Your task to perform on an android device: Open Google Image 0: 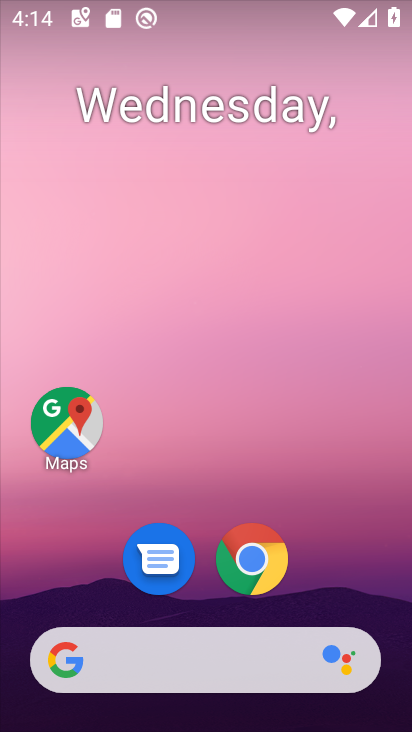
Step 0: drag from (341, 544) to (226, 80)
Your task to perform on an android device: Open Google Image 1: 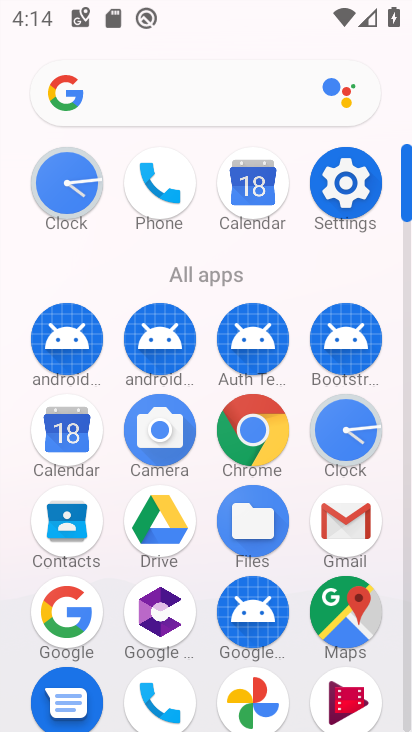
Step 1: click (66, 607)
Your task to perform on an android device: Open Google Image 2: 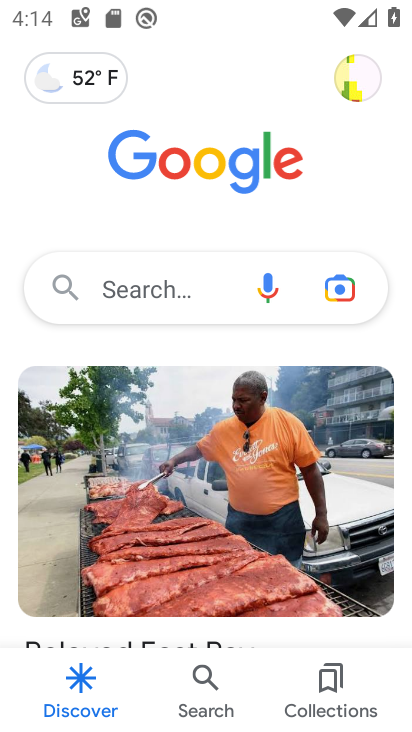
Step 2: task complete